Your task to perform on an android device: Open calendar and show me the fourth week of next month Image 0: 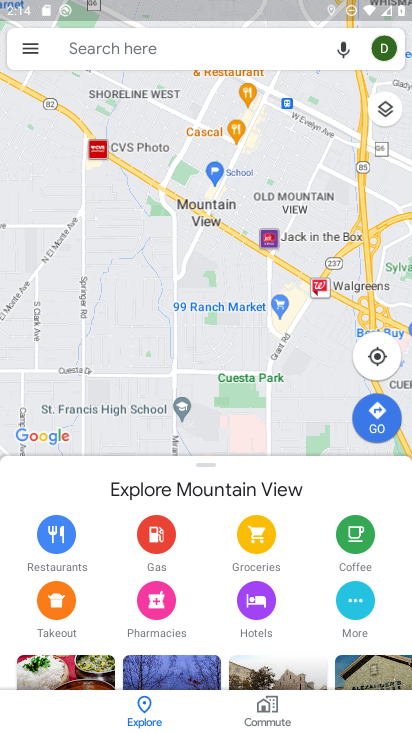
Step 0: press home button
Your task to perform on an android device: Open calendar and show me the fourth week of next month Image 1: 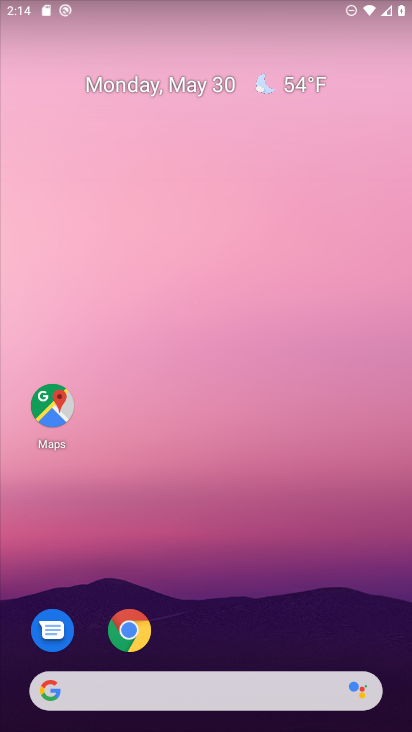
Step 1: drag from (148, 696) to (330, 141)
Your task to perform on an android device: Open calendar and show me the fourth week of next month Image 2: 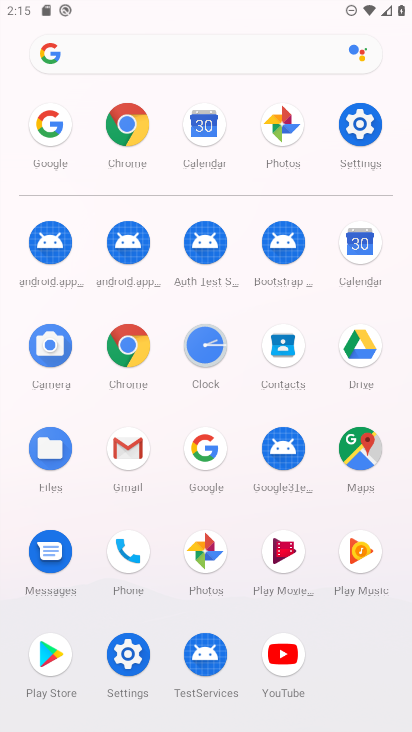
Step 2: click (359, 253)
Your task to perform on an android device: Open calendar and show me the fourth week of next month Image 3: 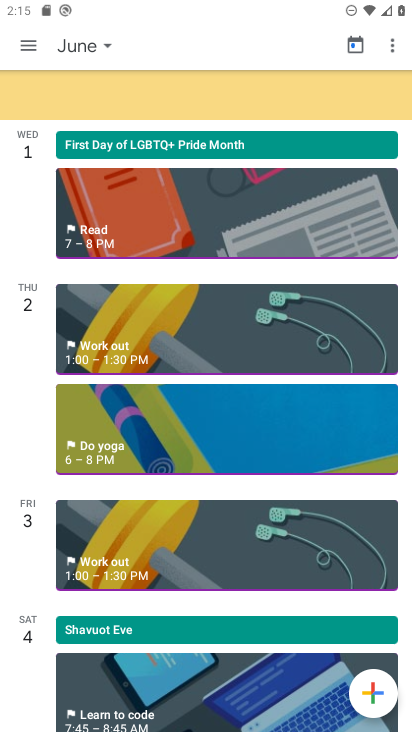
Step 3: click (62, 46)
Your task to perform on an android device: Open calendar and show me the fourth week of next month Image 4: 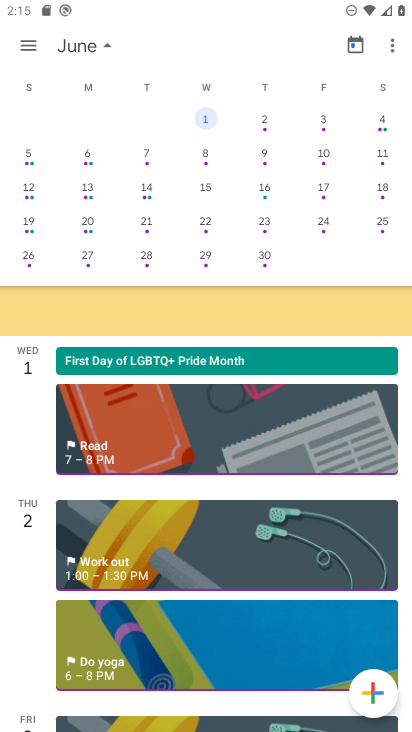
Step 4: click (32, 229)
Your task to perform on an android device: Open calendar and show me the fourth week of next month Image 5: 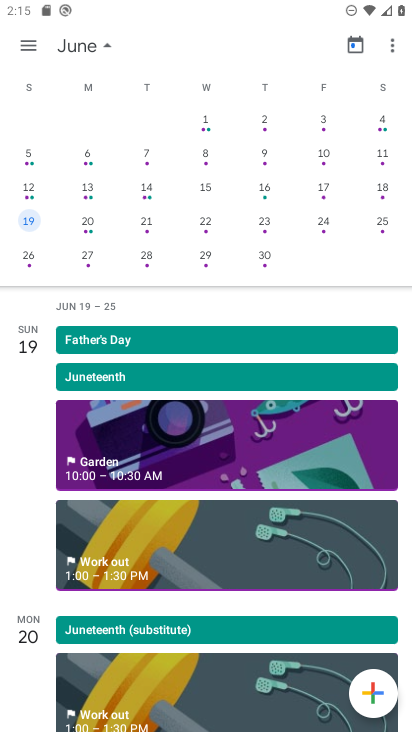
Step 5: click (30, 52)
Your task to perform on an android device: Open calendar and show me the fourth week of next month Image 6: 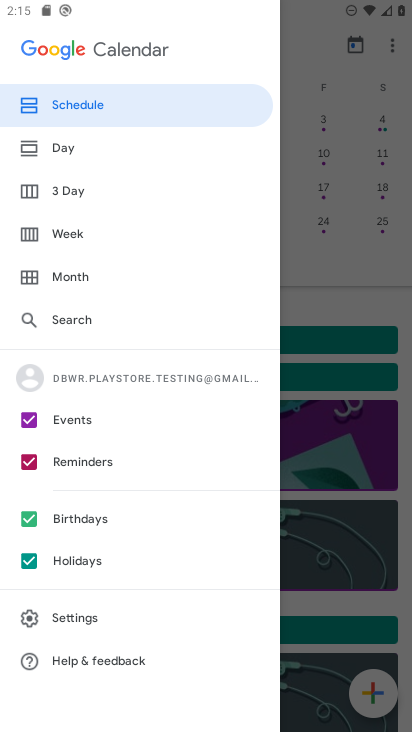
Step 6: click (69, 234)
Your task to perform on an android device: Open calendar and show me the fourth week of next month Image 7: 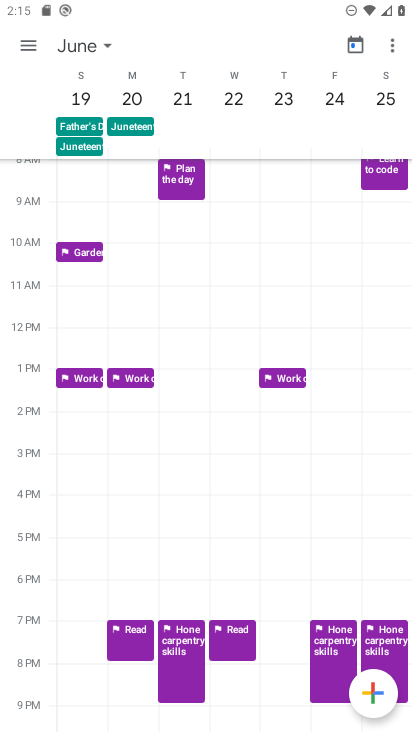
Step 7: task complete